Your task to perform on an android device: Open the map Image 0: 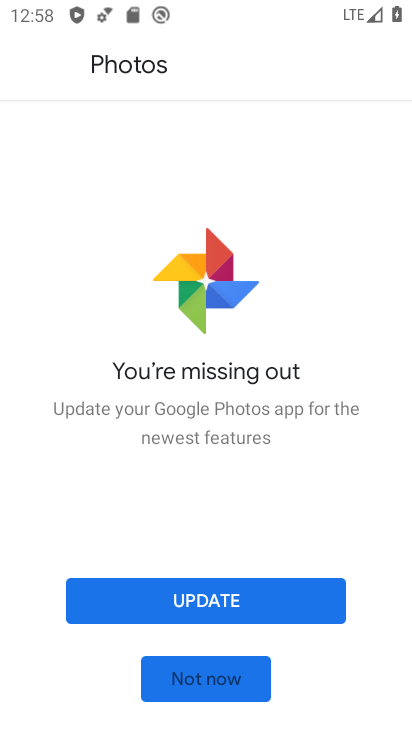
Step 0: press home button
Your task to perform on an android device: Open the map Image 1: 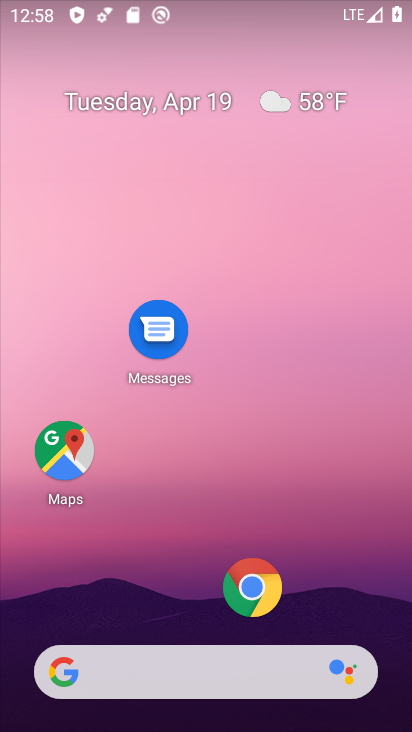
Step 1: click (66, 454)
Your task to perform on an android device: Open the map Image 2: 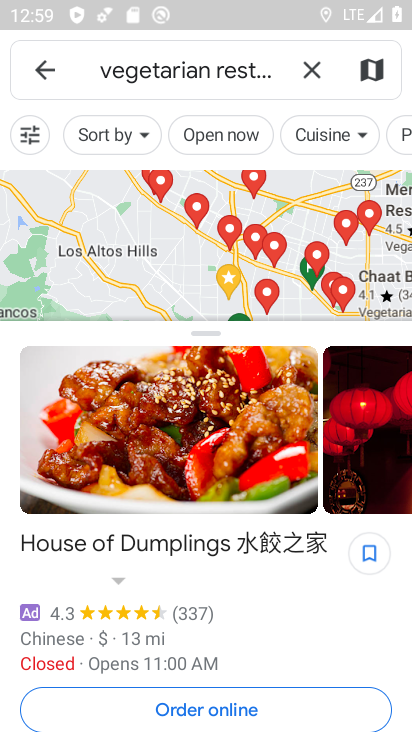
Step 2: task complete